Your task to perform on an android device: check the backup settings in the google photos Image 0: 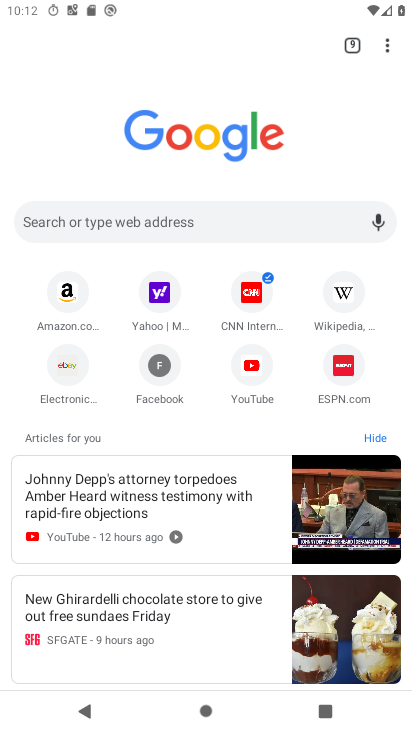
Step 0: press home button
Your task to perform on an android device: check the backup settings in the google photos Image 1: 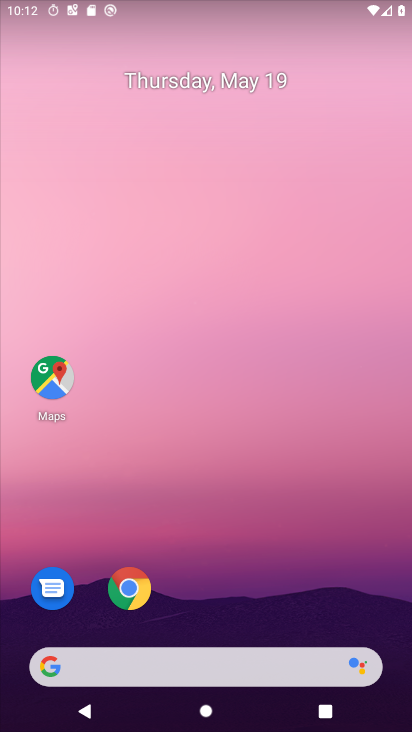
Step 1: drag from (189, 657) to (328, 89)
Your task to perform on an android device: check the backup settings in the google photos Image 2: 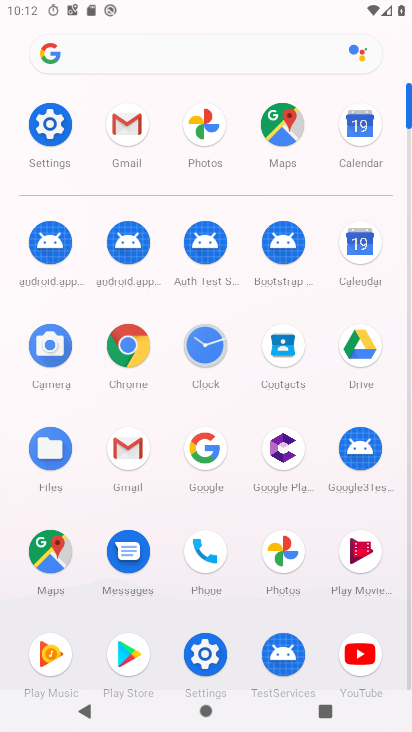
Step 2: click (274, 554)
Your task to perform on an android device: check the backup settings in the google photos Image 3: 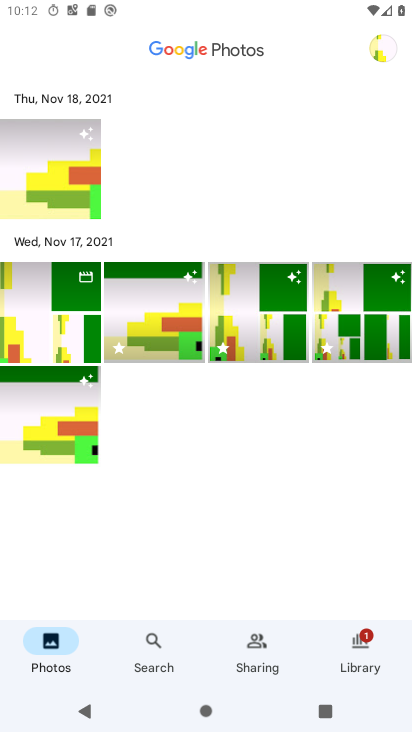
Step 3: click (380, 49)
Your task to perform on an android device: check the backup settings in the google photos Image 4: 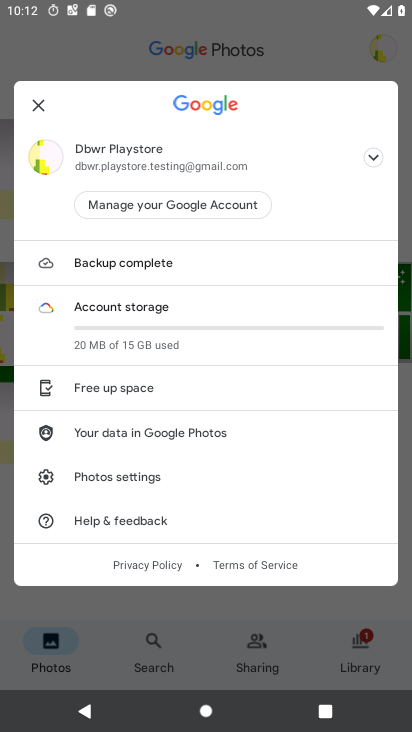
Step 4: click (137, 486)
Your task to perform on an android device: check the backup settings in the google photos Image 5: 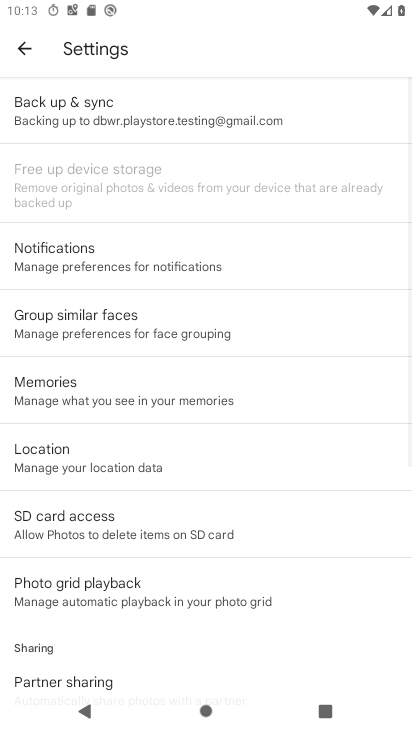
Step 5: click (104, 112)
Your task to perform on an android device: check the backup settings in the google photos Image 6: 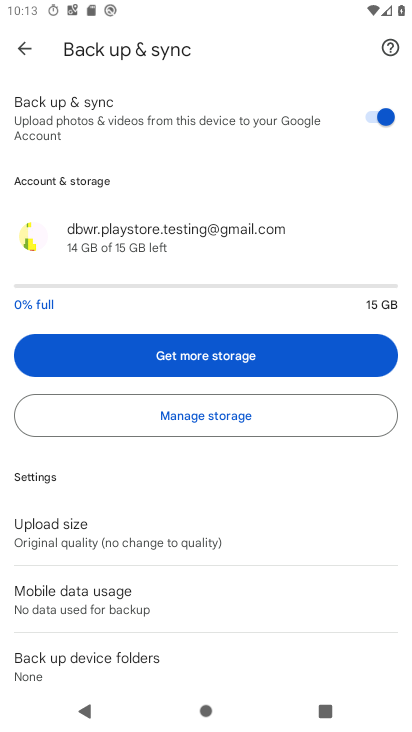
Step 6: task complete